Your task to perform on an android device: change timer sound Image 0: 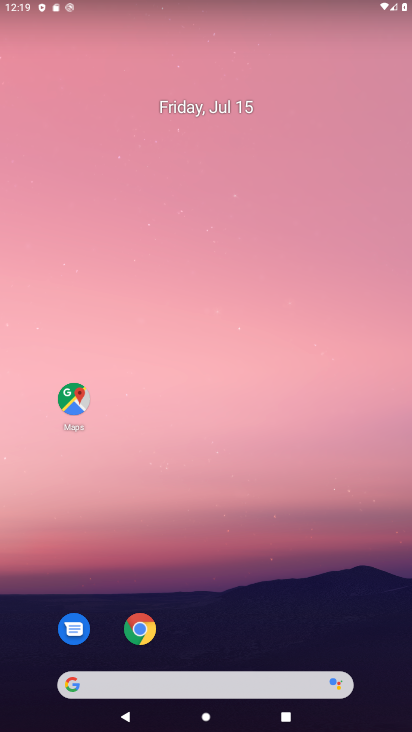
Step 0: drag from (256, 478) to (246, 95)
Your task to perform on an android device: change timer sound Image 1: 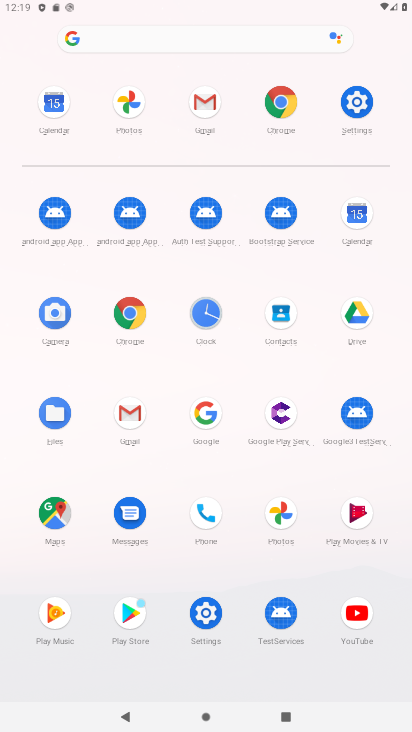
Step 1: click (203, 314)
Your task to perform on an android device: change timer sound Image 2: 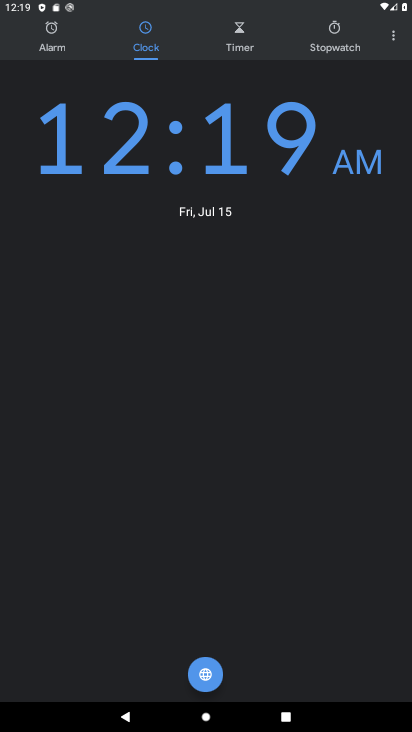
Step 2: click (395, 36)
Your task to perform on an android device: change timer sound Image 3: 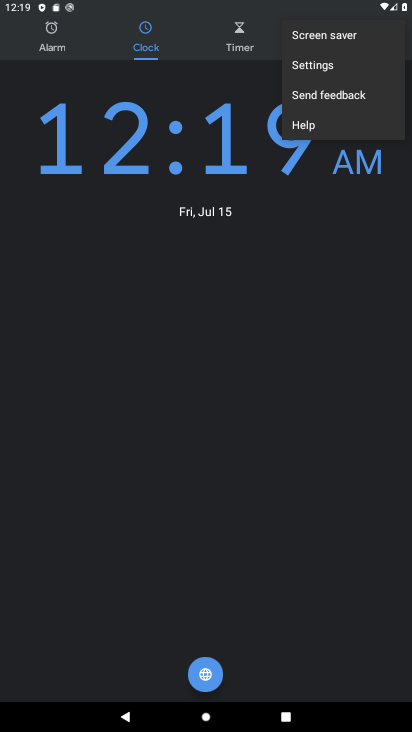
Step 3: click (321, 73)
Your task to perform on an android device: change timer sound Image 4: 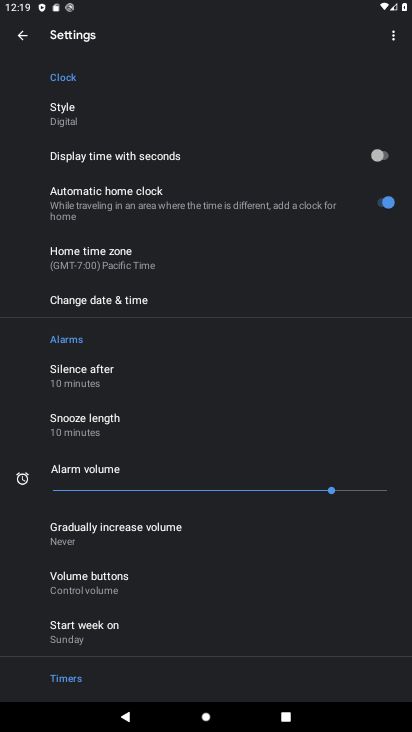
Step 4: drag from (237, 374) to (246, 720)
Your task to perform on an android device: change timer sound Image 5: 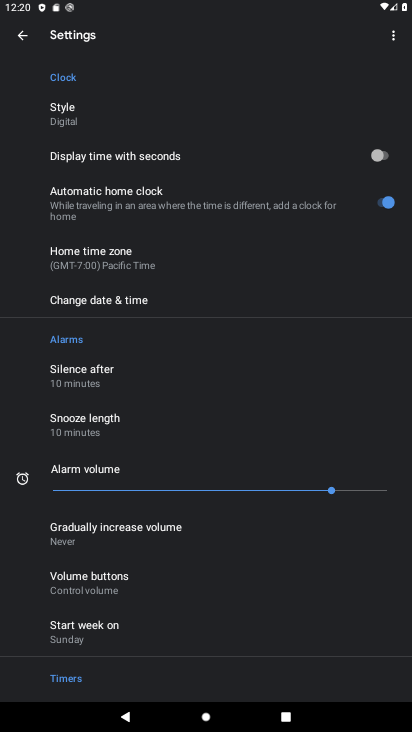
Step 5: drag from (205, 652) to (228, 102)
Your task to perform on an android device: change timer sound Image 6: 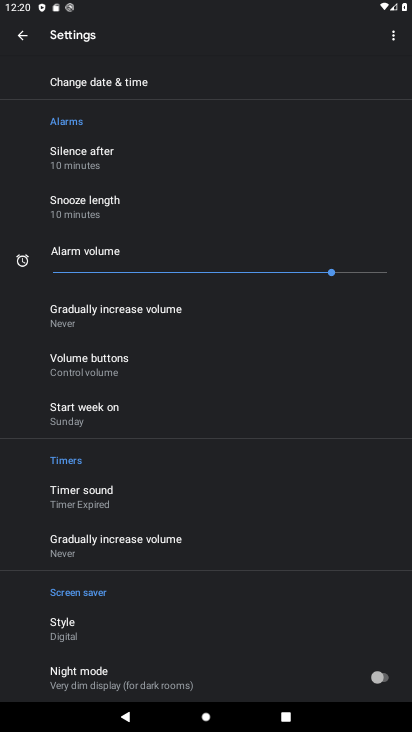
Step 6: click (93, 495)
Your task to perform on an android device: change timer sound Image 7: 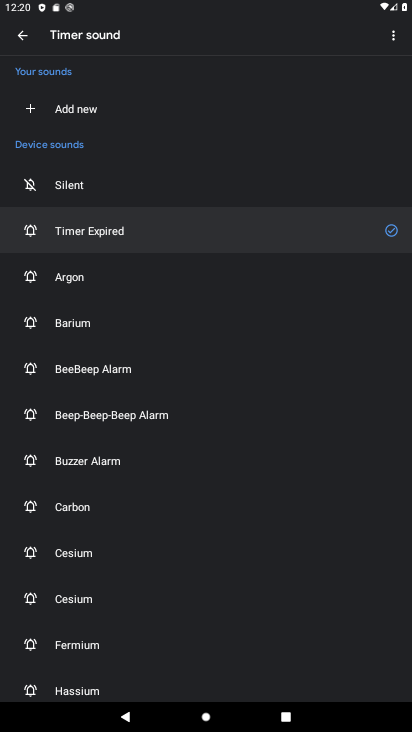
Step 7: click (78, 292)
Your task to perform on an android device: change timer sound Image 8: 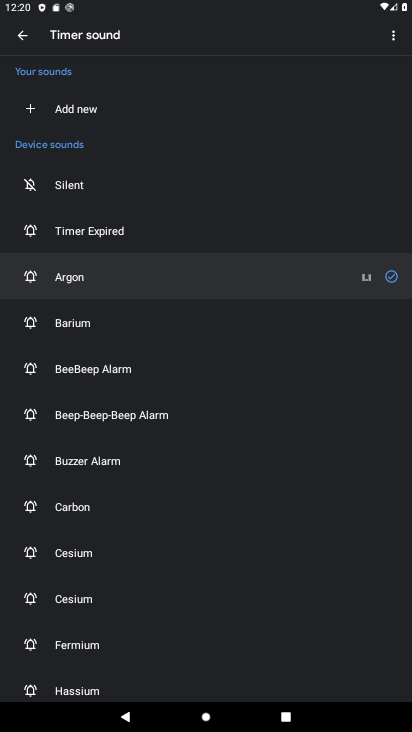
Step 8: task complete